Your task to perform on an android device: Show me popular videos on Youtube Image 0: 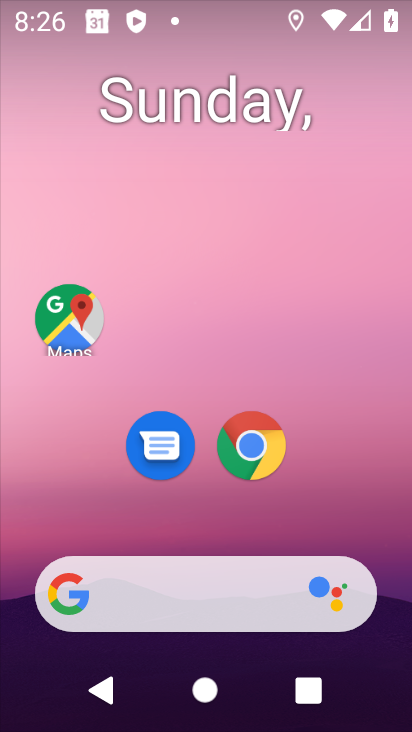
Step 0: drag from (345, 503) to (305, 110)
Your task to perform on an android device: Show me popular videos on Youtube Image 1: 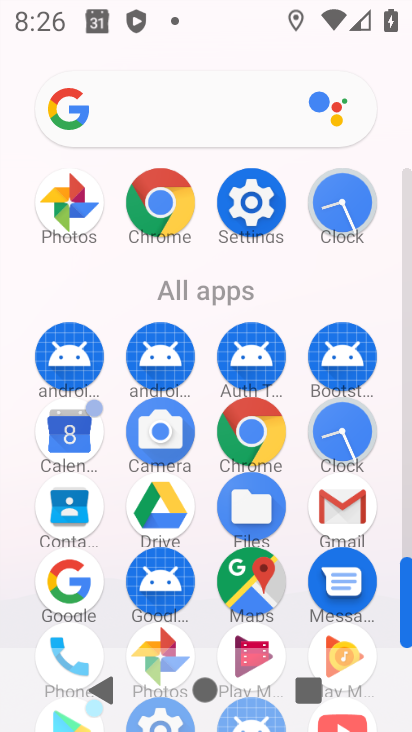
Step 1: drag from (315, 553) to (294, 235)
Your task to perform on an android device: Show me popular videos on Youtube Image 2: 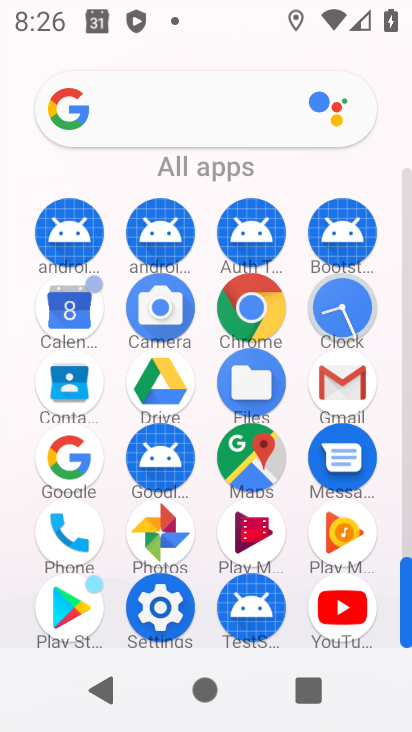
Step 2: click (342, 605)
Your task to perform on an android device: Show me popular videos on Youtube Image 3: 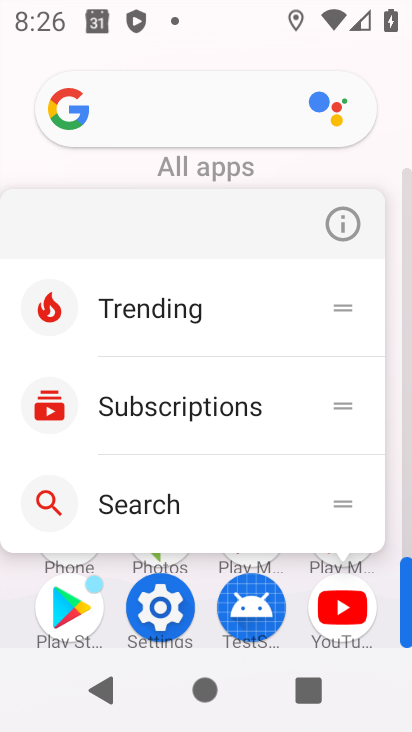
Step 3: click (329, 590)
Your task to perform on an android device: Show me popular videos on Youtube Image 4: 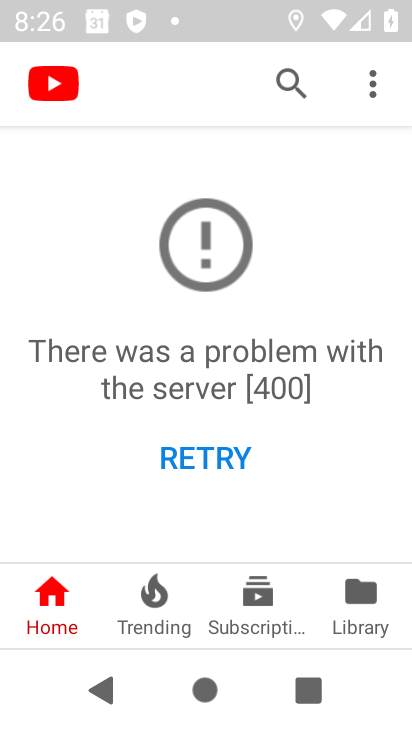
Step 4: click (205, 454)
Your task to perform on an android device: Show me popular videos on Youtube Image 5: 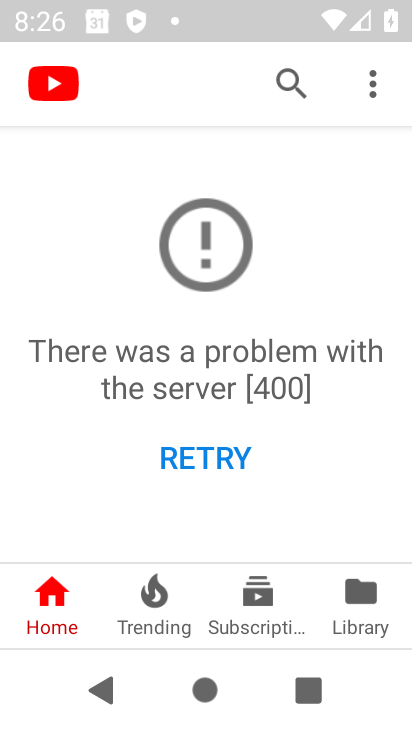
Step 5: task complete